Your task to perform on an android device: find snoozed emails in the gmail app Image 0: 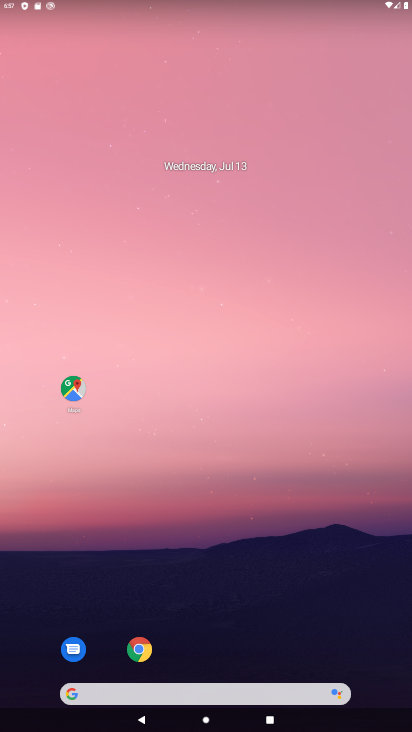
Step 0: drag from (216, 695) to (277, 58)
Your task to perform on an android device: find snoozed emails in the gmail app Image 1: 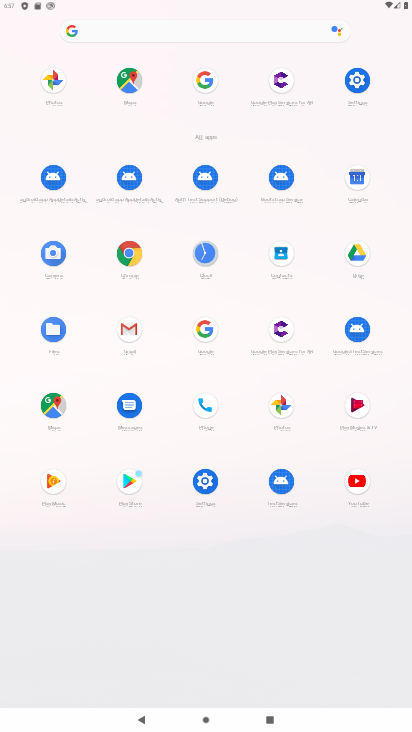
Step 1: click (131, 330)
Your task to perform on an android device: find snoozed emails in the gmail app Image 2: 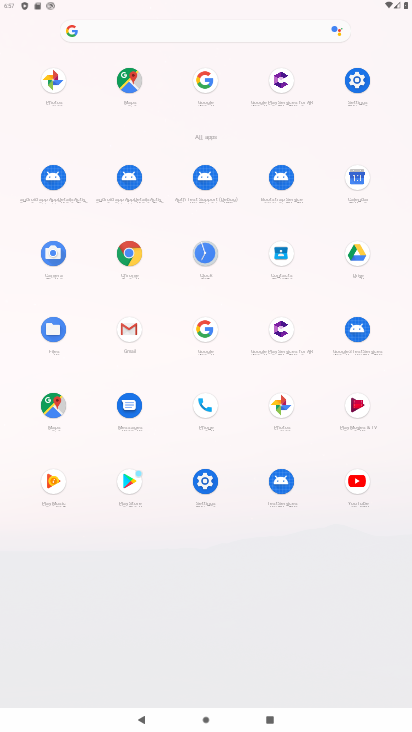
Step 2: click (131, 330)
Your task to perform on an android device: find snoozed emails in the gmail app Image 3: 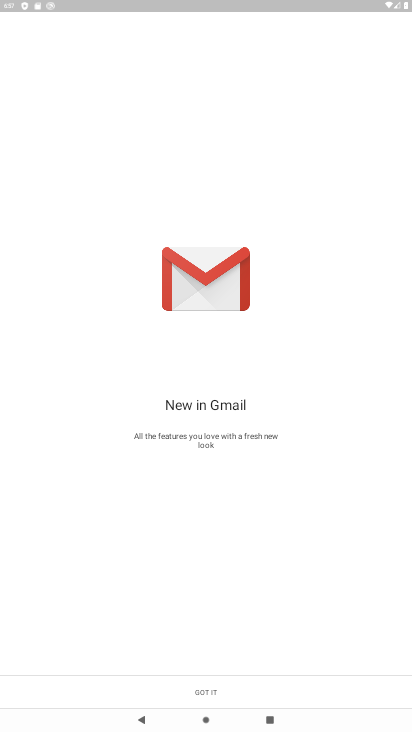
Step 3: click (207, 690)
Your task to perform on an android device: find snoozed emails in the gmail app Image 4: 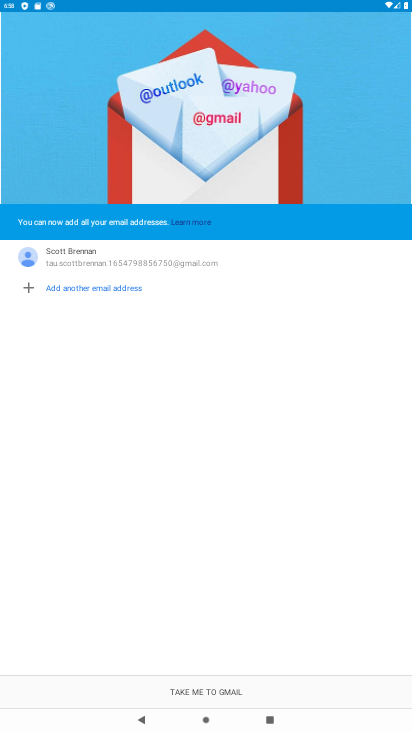
Step 4: click (207, 690)
Your task to perform on an android device: find snoozed emails in the gmail app Image 5: 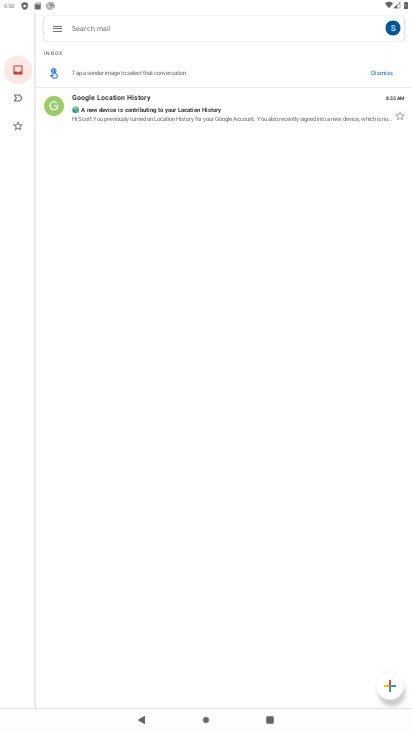
Step 5: click (60, 26)
Your task to perform on an android device: find snoozed emails in the gmail app Image 6: 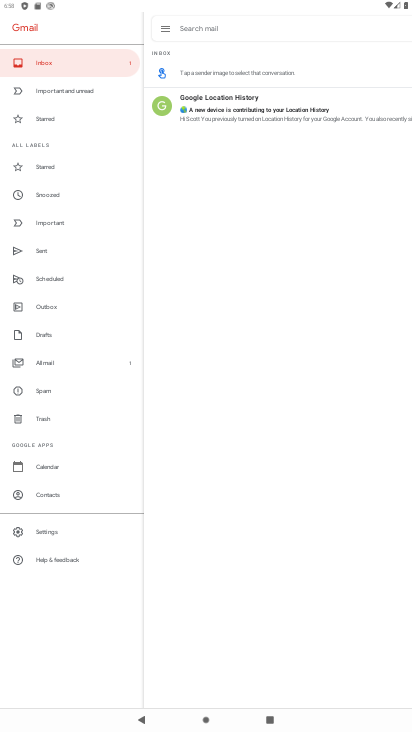
Step 6: click (57, 194)
Your task to perform on an android device: find snoozed emails in the gmail app Image 7: 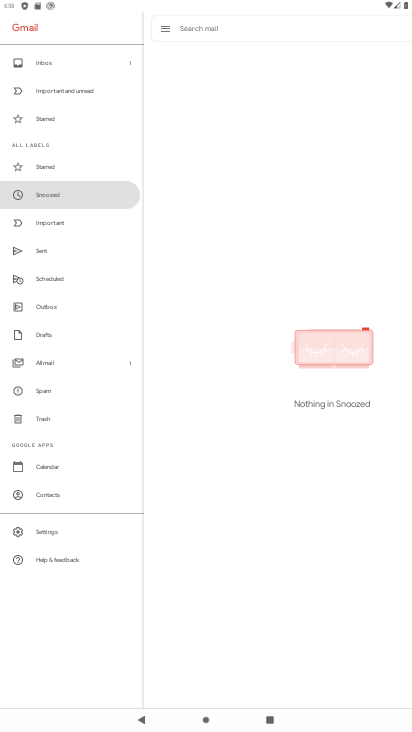
Step 7: click (46, 357)
Your task to perform on an android device: find snoozed emails in the gmail app Image 8: 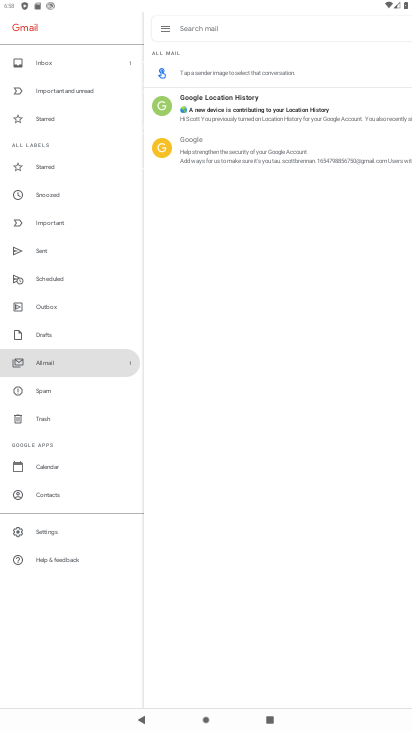
Step 8: click (120, 369)
Your task to perform on an android device: find snoozed emails in the gmail app Image 9: 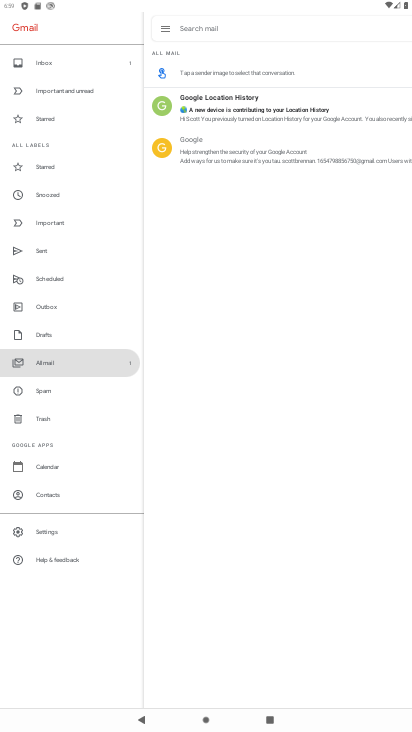
Step 9: click (324, 118)
Your task to perform on an android device: find snoozed emails in the gmail app Image 10: 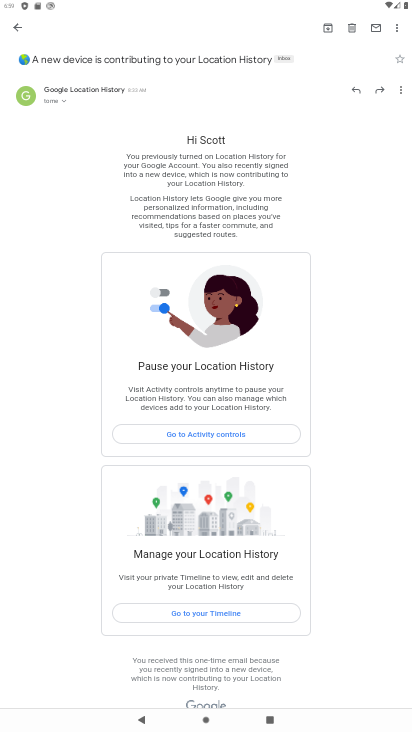
Step 10: task complete